Your task to perform on an android device: turn on airplane mode Image 0: 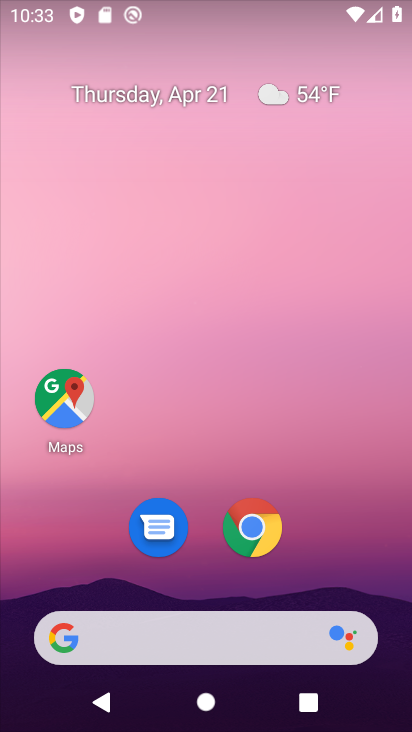
Step 0: drag from (300, 531) to (336, 141)
Your task to perform on an android device: turn on airplane mode Image 1: 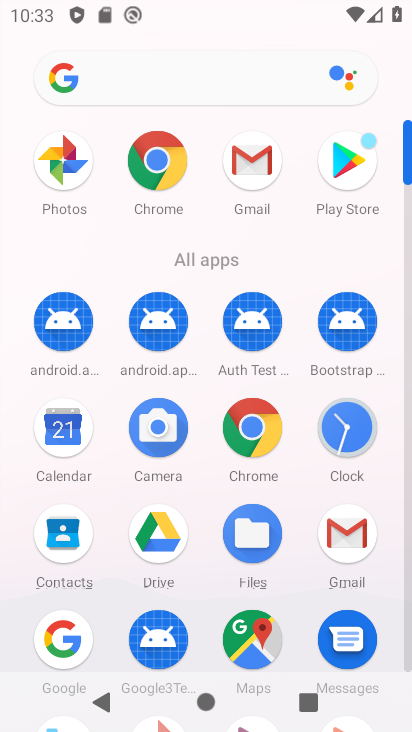
Step 1: drag from (203, 634) to (215, 337)
Your task to perform on an android device: turn on airplane mode Image 2: 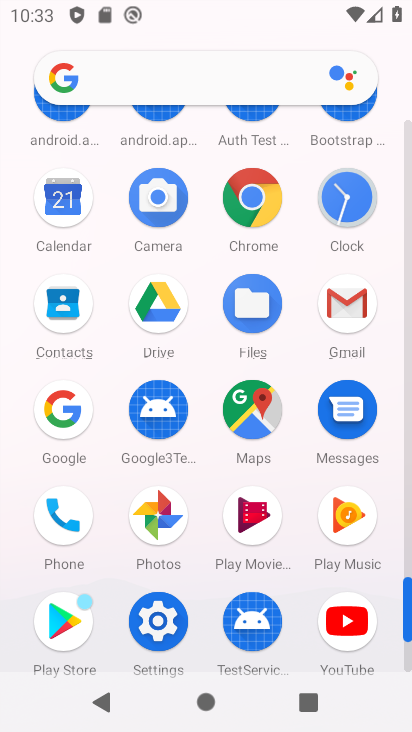
Step 2: drag from (203, 560) to (222, 589)
Your task to perform on an android device: turn on airplane mode Image 3: 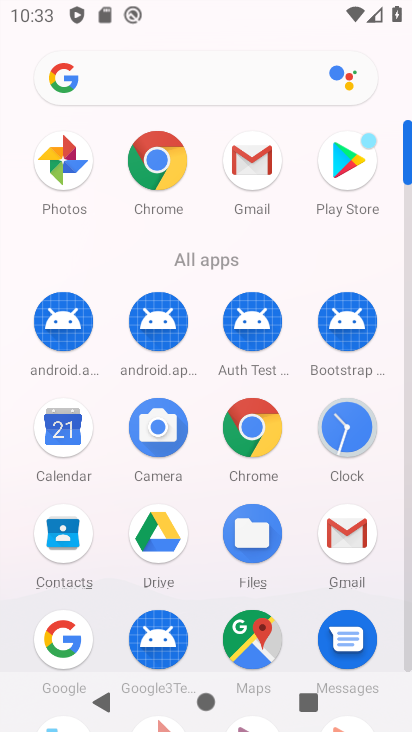
Step 3: drag from (207, 578) to (205, 342)
Your task to perform on an android device: turn on airplane mode Image 4: 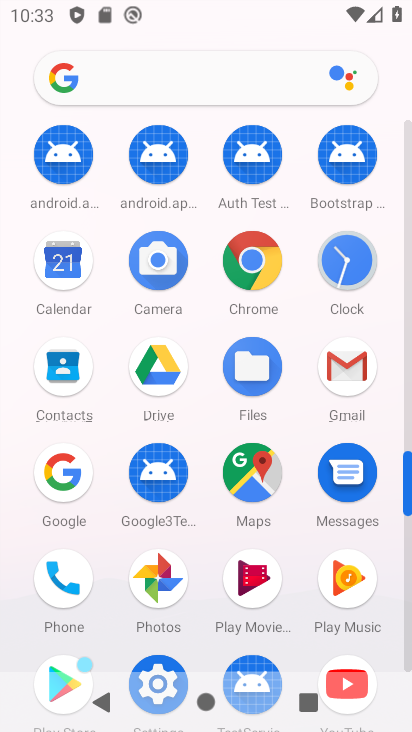
Step 4: drag from (222, 593) to (206, 443)
Your task to perform on an android device: turn on airplane mode Image 5: 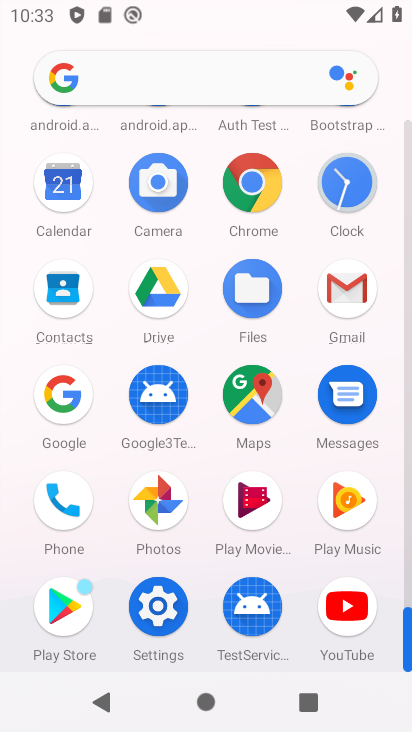
Step 5: click (159, 622)
Your task to perform on an android device: turn on airplane mode Image 6: 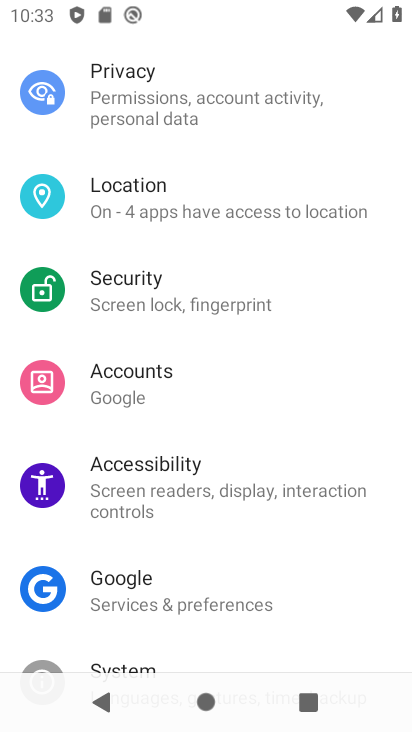
Step 6: drag from (223, 184) to (236, 581)
Your task to perform on an android device: turn on airplane mode Image 7: 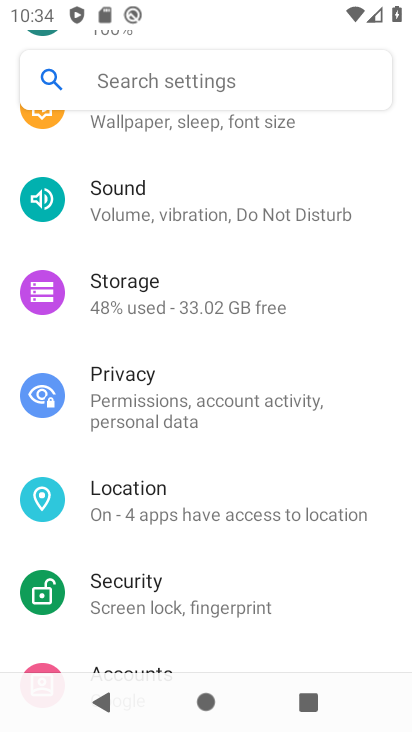
Step 7: drag from (194, 227) to (218, 569)
Your task to perform on an android device: turn on airplane mode Image 8: 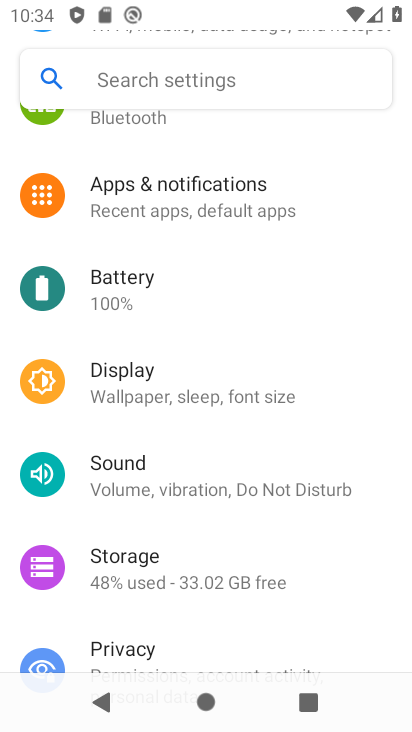
Step 8: drag from (196, 340) to (217, 613)
Your task to perform on an android device: turn on airplane mode Image 9: 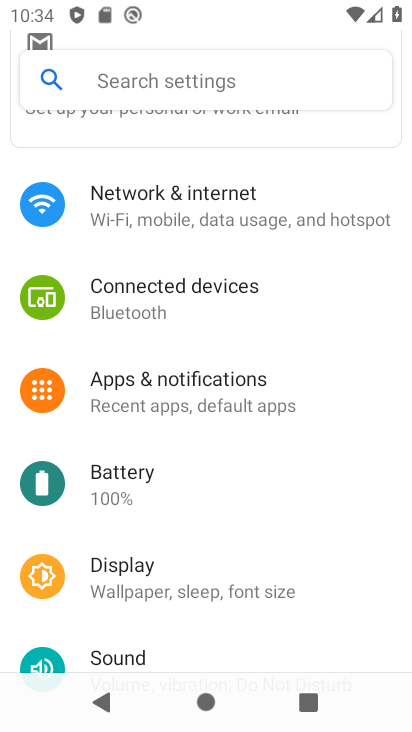
Step 9: drag from (219, 336) to (244, 565)
Your task to perform on an android device: turn on airplane mode Image 10: 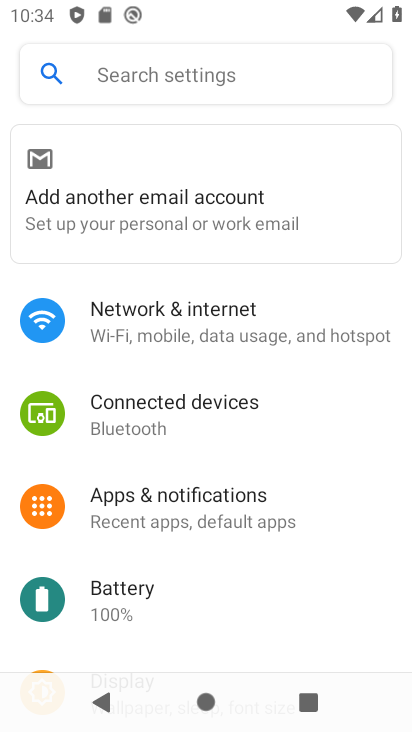
Step 10: click (232, 351)
Your task to perform on an android device: turn on airplane mode Image 11: 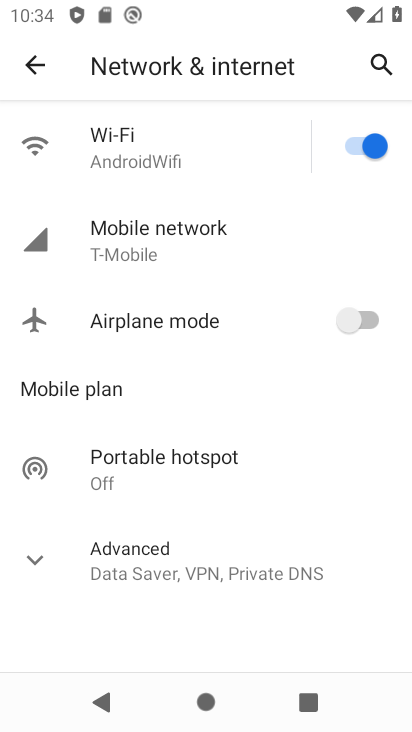
Step 11: click (357, 323)
Your task to perform on an android device: turn on airplane mode Image 12: 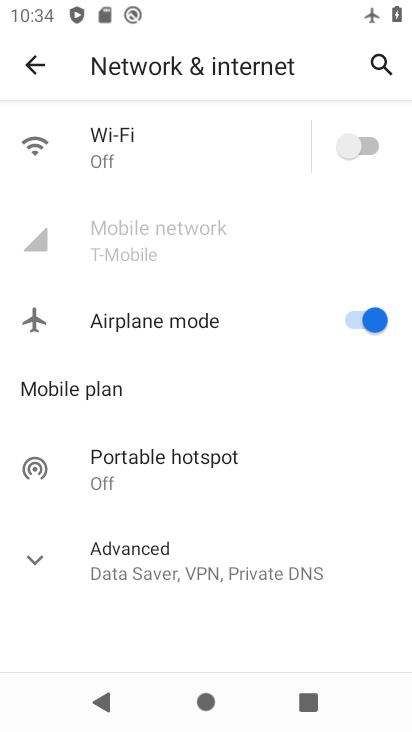
Step 12: task complete